Your task to perform on an android device: Open calendar and show me the third week of next month Image 0: 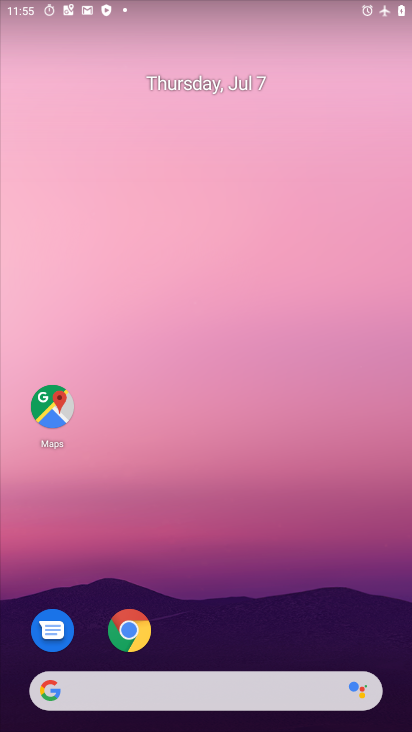
Step 0: drag from (181, 634) to (186, 200)
Your task to perform on an android device: Open calendar and show me the third week of next month Image 1: 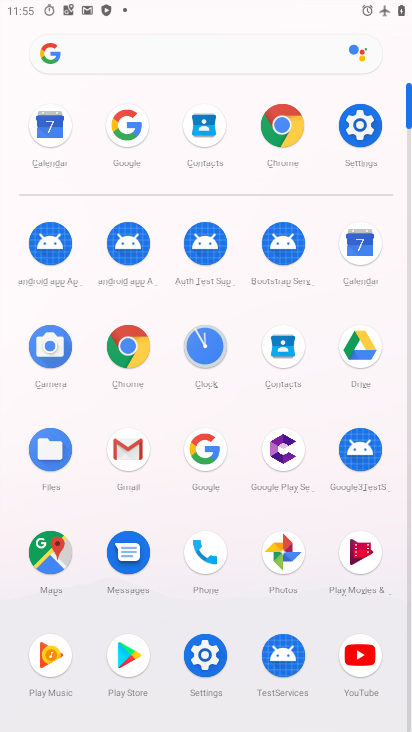
Step 1: click (371, 256)
Your task to perform on an android device: Open calendar and show me the third week of next month Image 2: 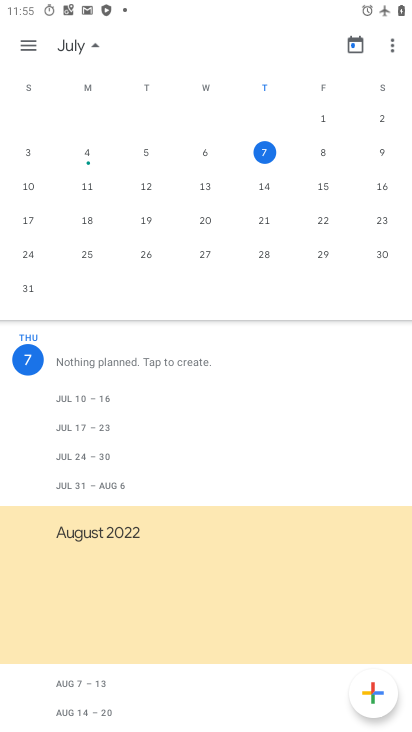
Step 2: drag from (297, 180) to (8, 182)
Your task to perform on an android device: Open calendar and show me the third week of next month Image 3: 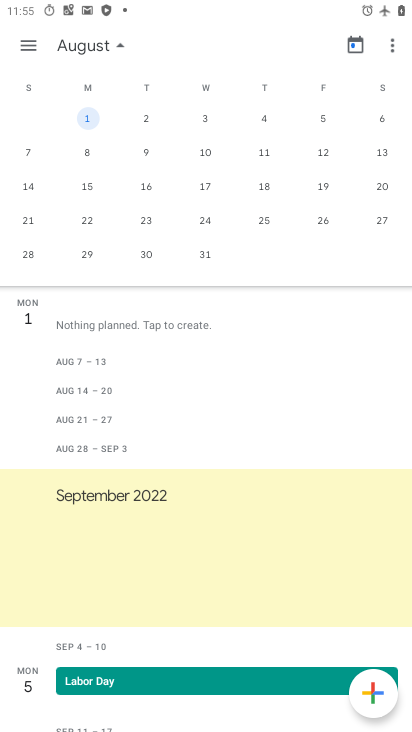
Step 3: click (33, 194)
Your task to perform on an android device: Open calendar and show me the third week of next month Image 4: 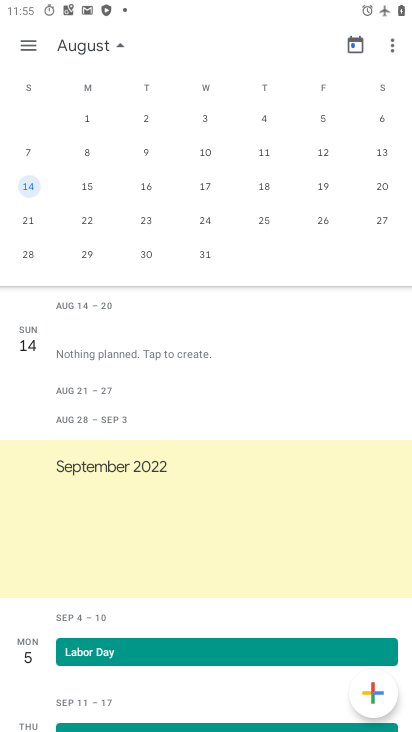
Step 4: click (91, 197)
Your task to perform on an android device: Open calendar and show me the third week of next month Image 5: 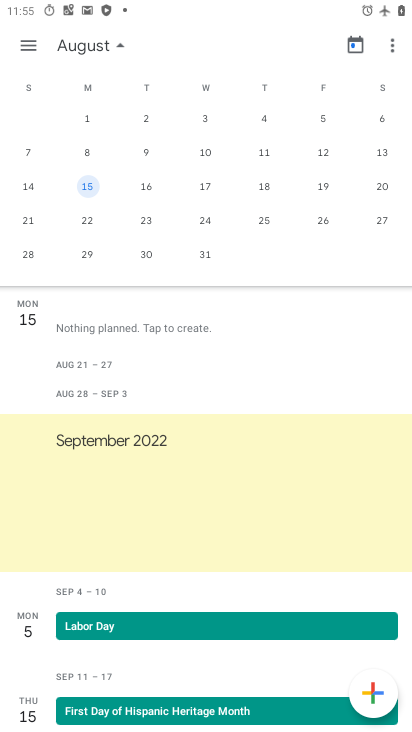
Step 5: task complete